Your task to perform on an android device: Show me productivity apps on the Play Store Image 0: 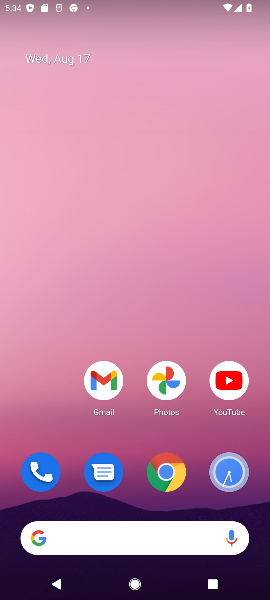
Step 0: drag from (146, 409) to (145, 132)
Your task to perform on an android device: Show me productivity apps on the Play Store Image 1: 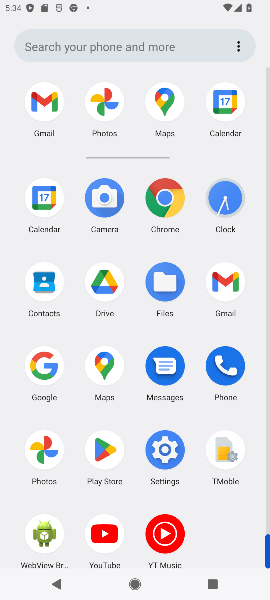
Step 1: click (121, 456)
Your task to perform on an android device: Show me productivity apps on the Play Store Image 2: 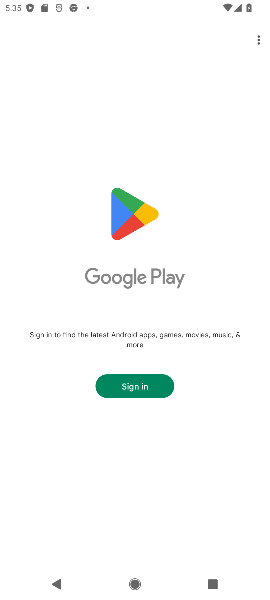
Step 2: task complete